Your task to perform on an android device: What is the news today? Image 0: 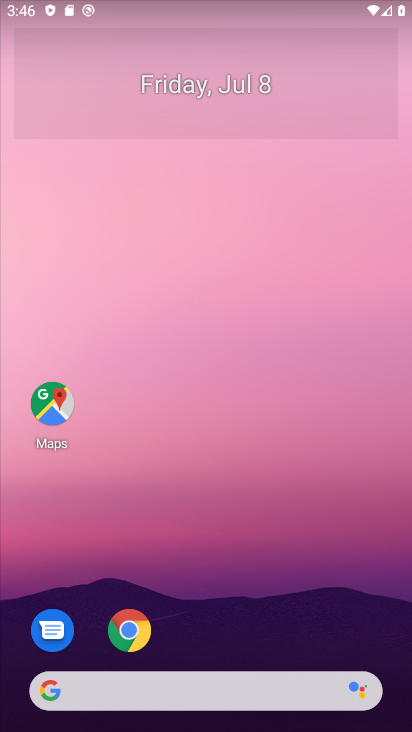
Step 0: click (105, 698)
Your task to perform on an android device: What is the news today? Image 1: 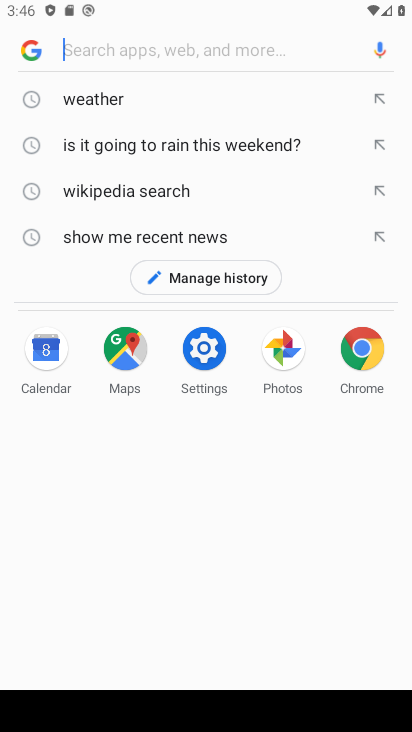
Step 1: type "What is the news today?"
Your task to perform on an android device: What is the news today? Image 2: 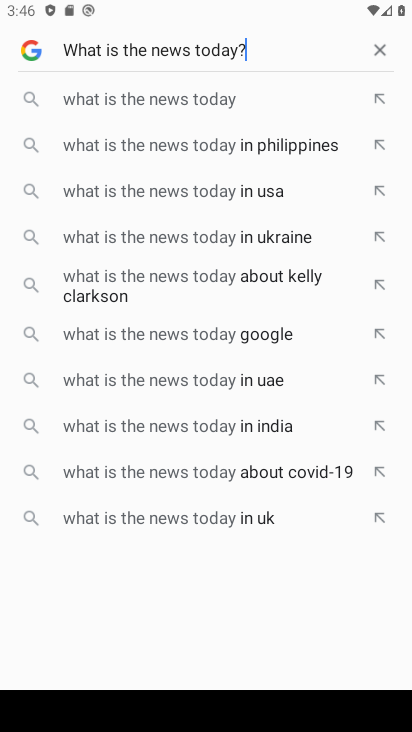
Step 2: type ""
Your task to perform on an android device: What is the news today? Image 3: 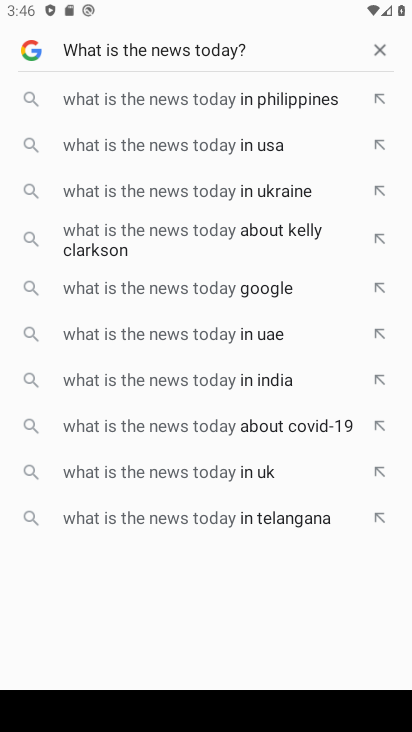
Step 3: type ""
Your task to perform on an android device: What is the news today? Image 4: 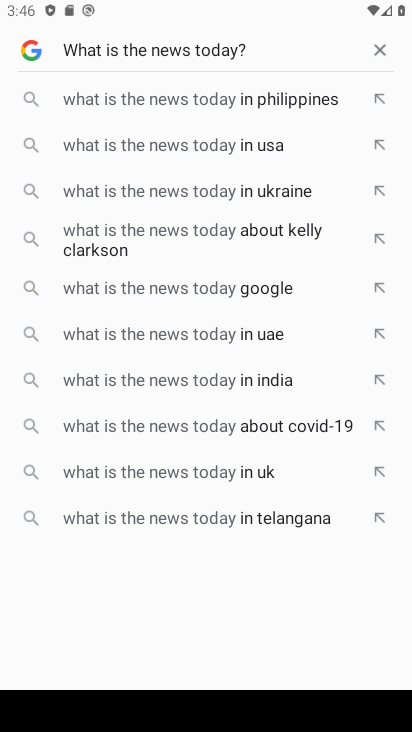
Step 4: task complete